Your task to perform on an android device: add a contact in the contacts app Image 0: 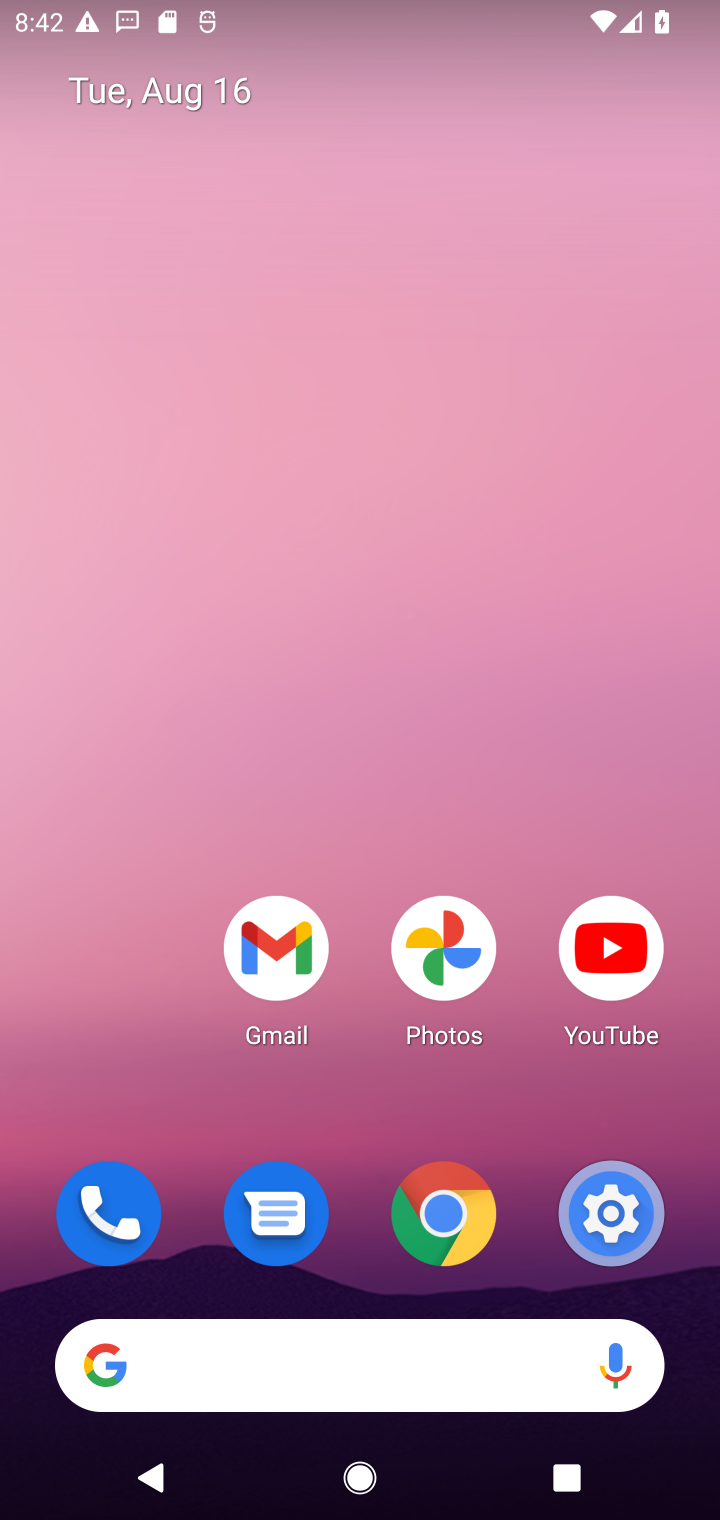
Step 0: press home button
Your task to perform on an android device: add a contact in the contacts app Image 1: 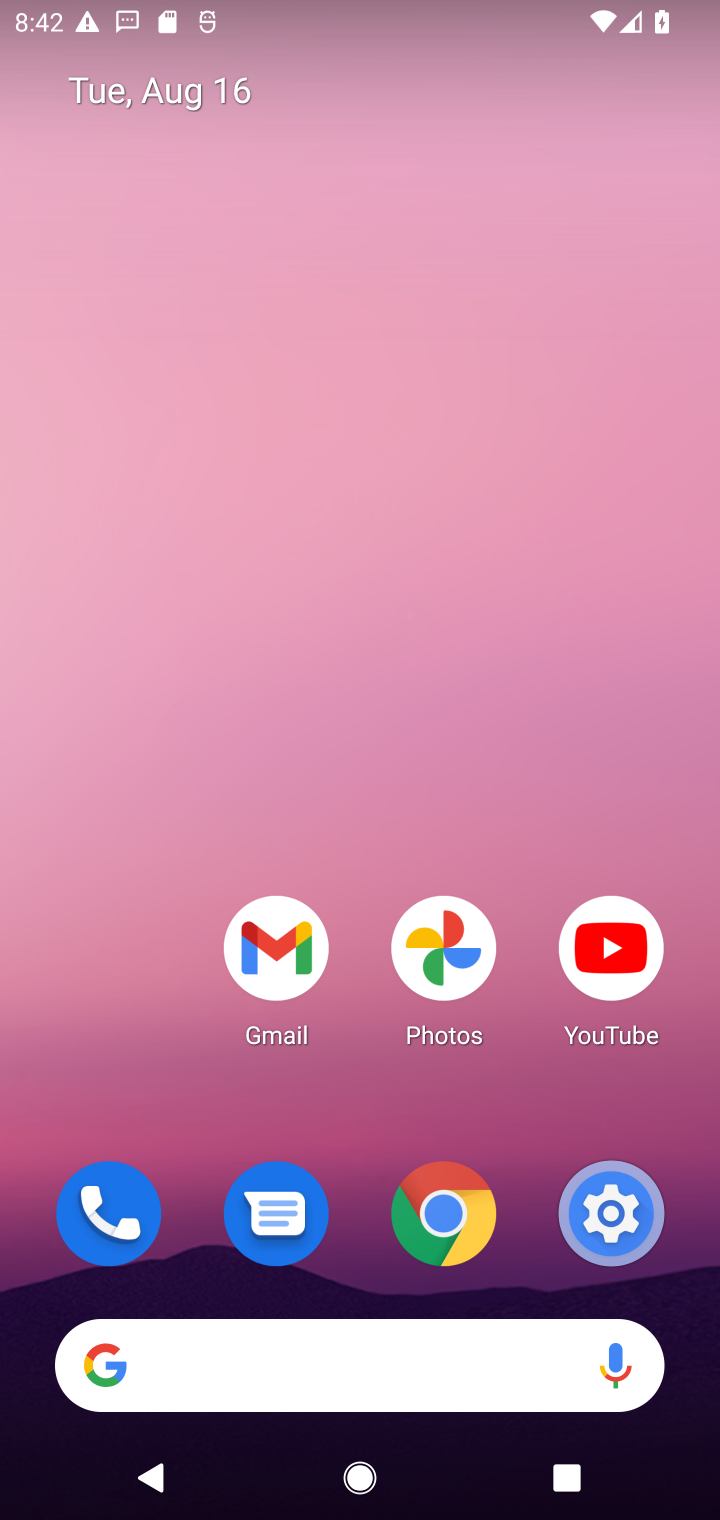
Step 1: press home button
Your task to perform on an android device: add a contact in the contacts app Image 2: 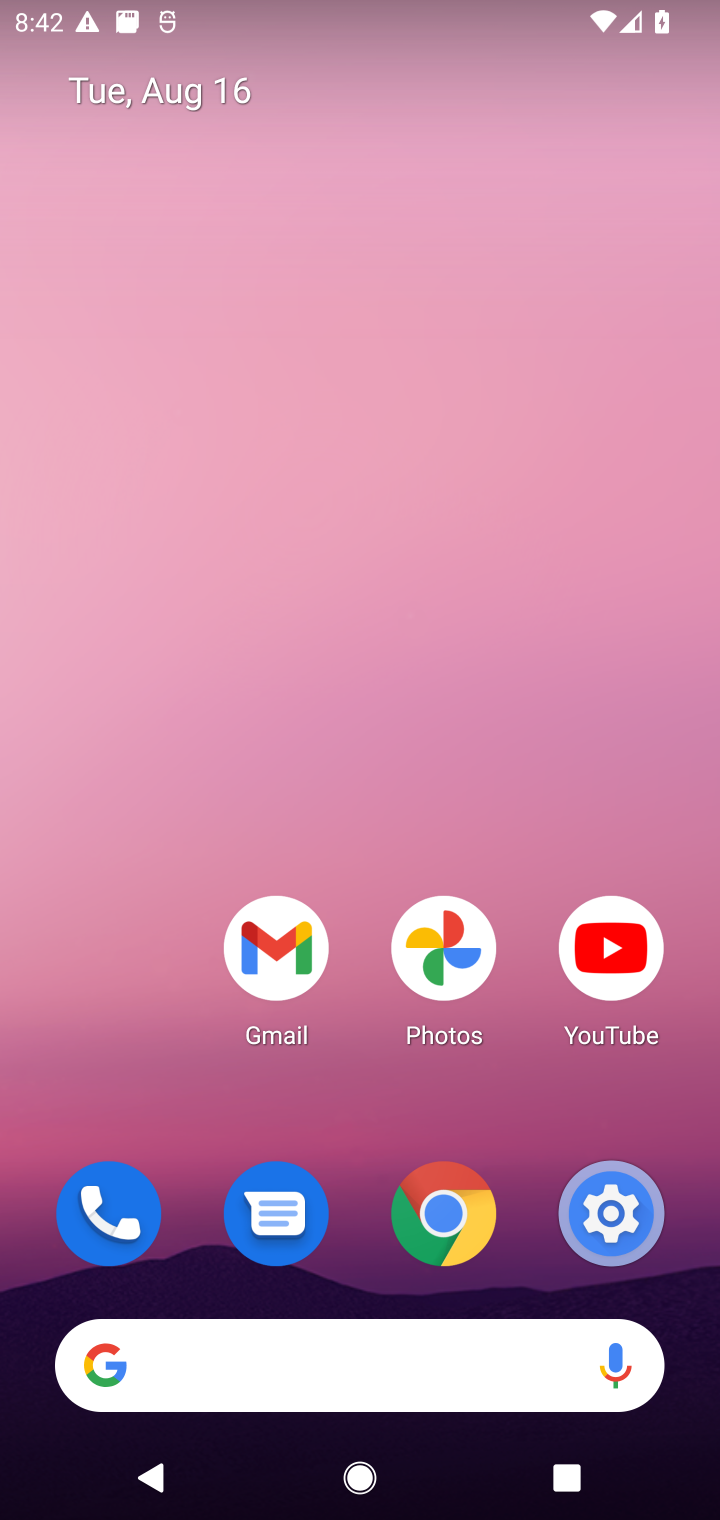
Step 2: drag from (152, 1063) to (175, 163)
Your task to perform on an android device: add a contact in the contacts app Image 3: 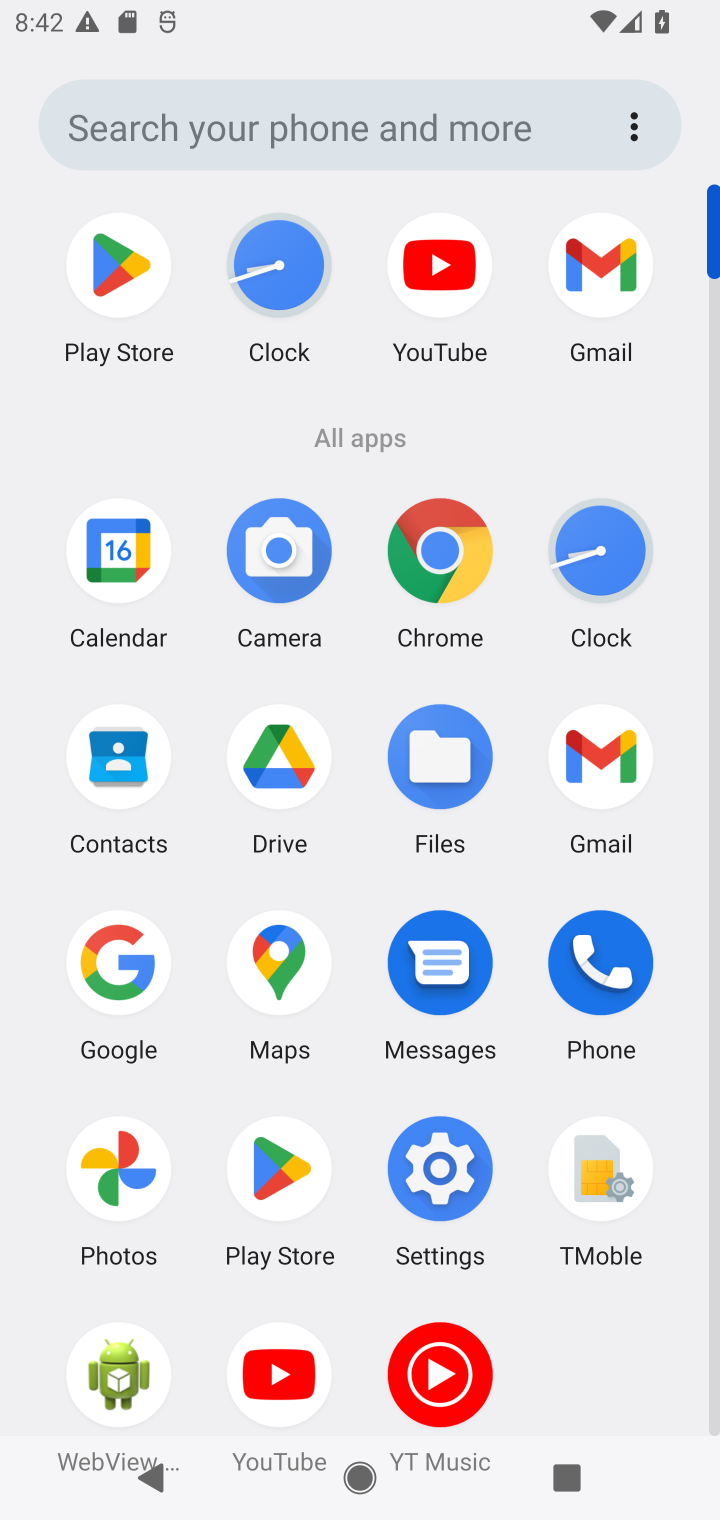
Step 3: click (107, 768)
Your task to perform on an android device: add a contact in the contacts app Image 4: 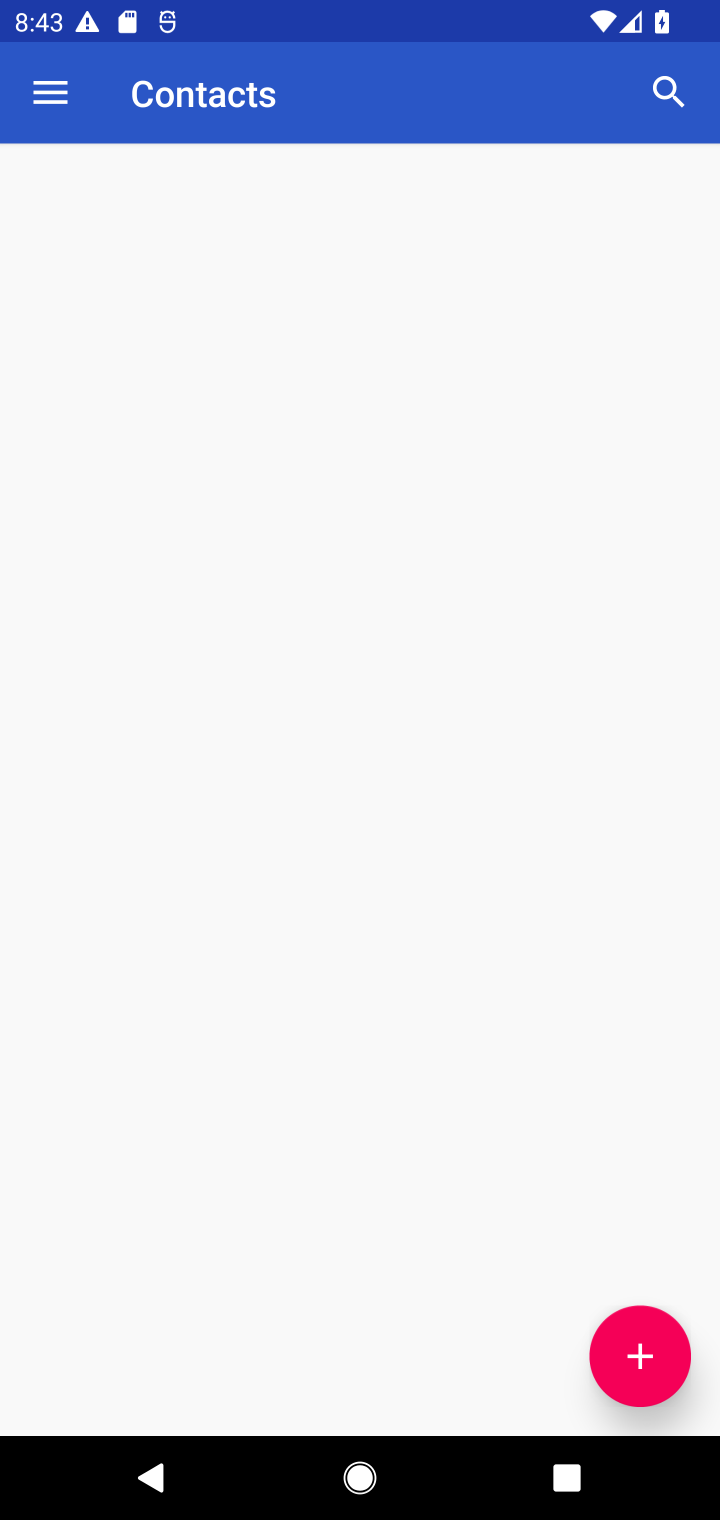
Step 4: click (658, 1346)
Your task to perform on an android device: add a contact in the contacts app Image 5: 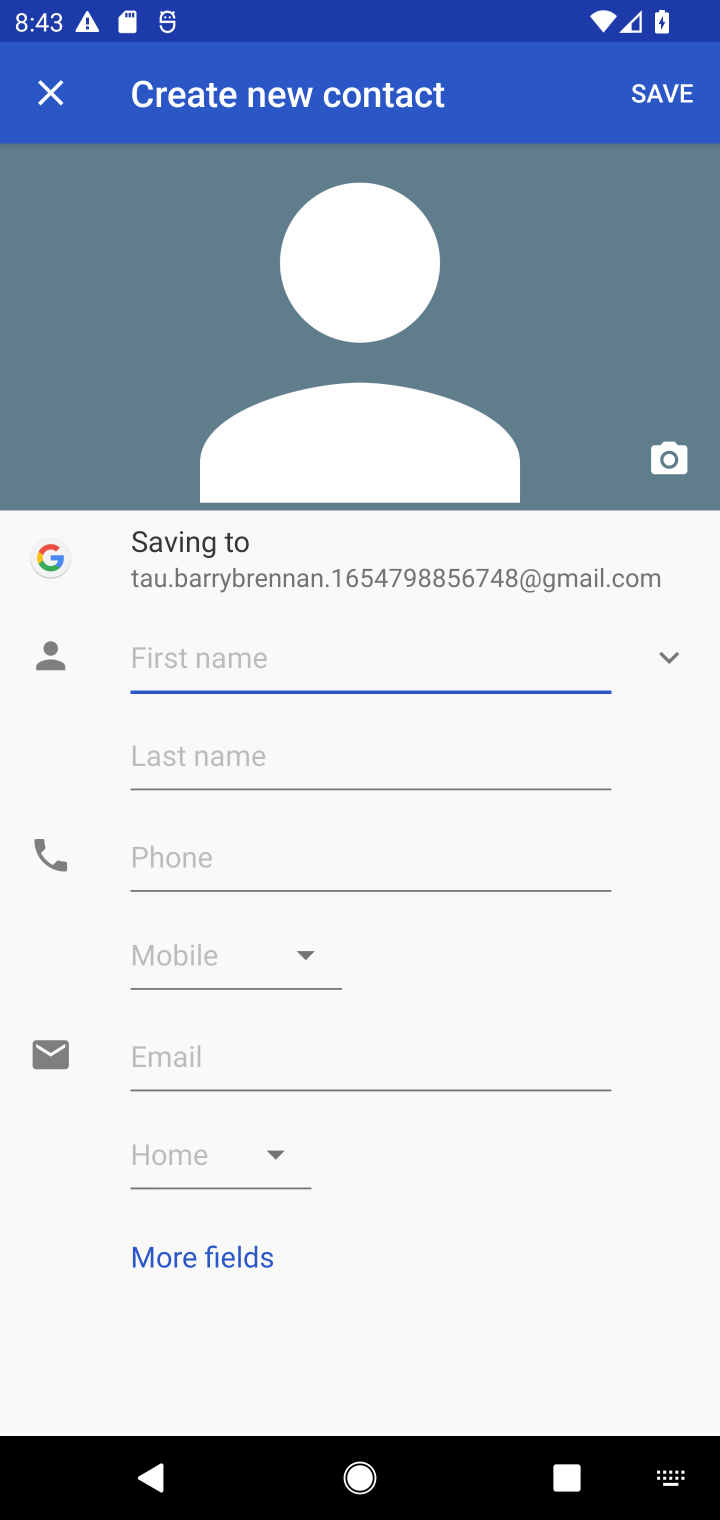
Step 5: type "rttgtgtwtgwgtr"
Your task to perform on an android device: add a contact in the contacts app Image 6: 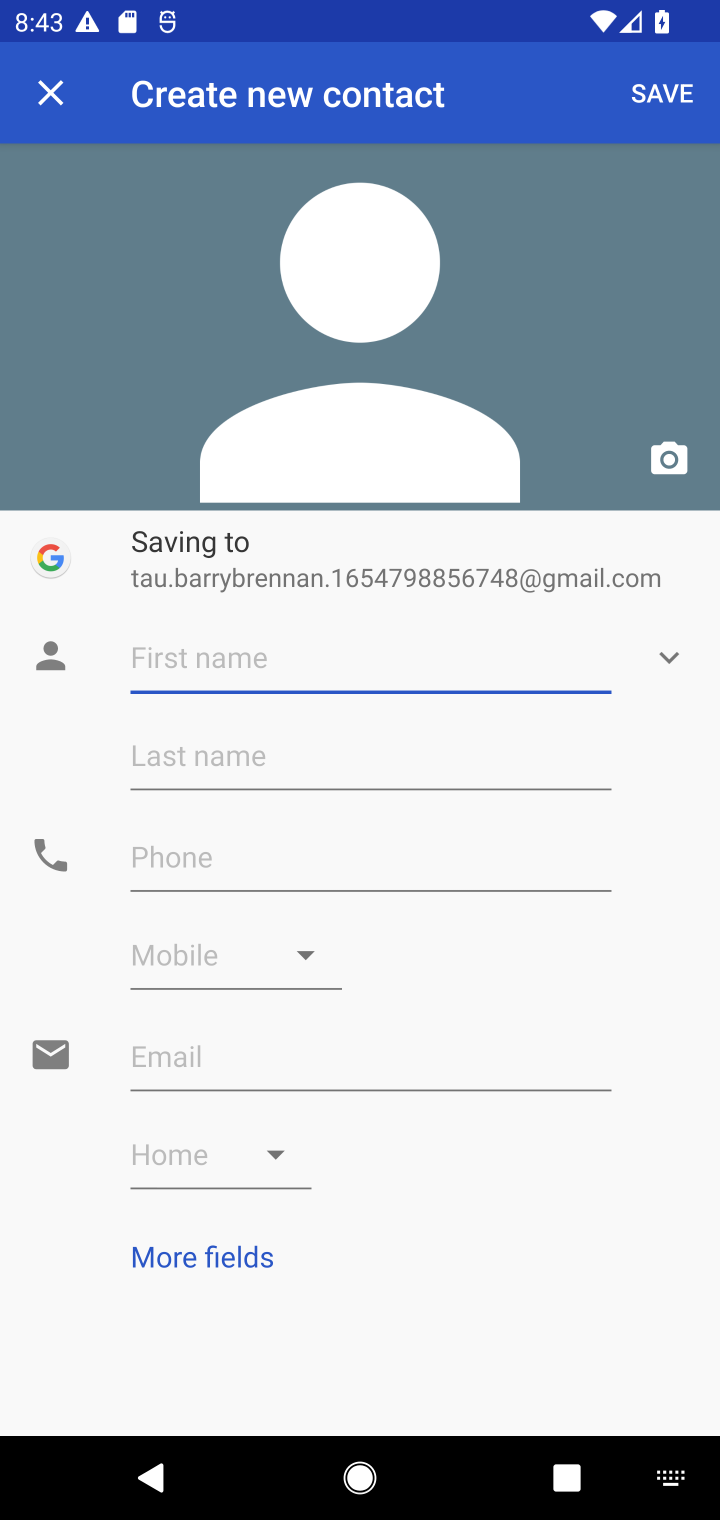
Step 6: click (300, 666)
Your task to perform on an android device: add a contact in the contacts app Image 7: 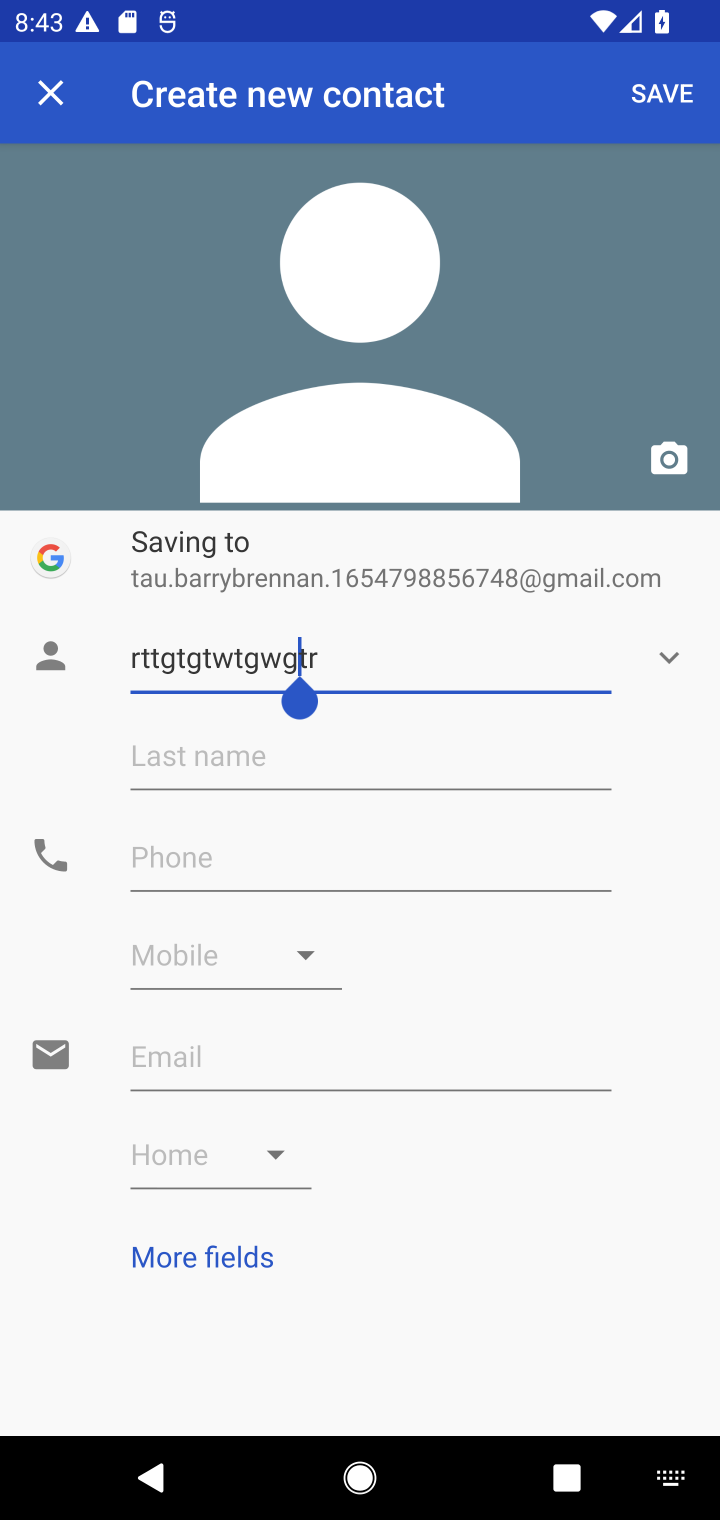
Step 7: click (200, 870)
Your task to perform on an android device: add a contact in the contacts app Image 8: 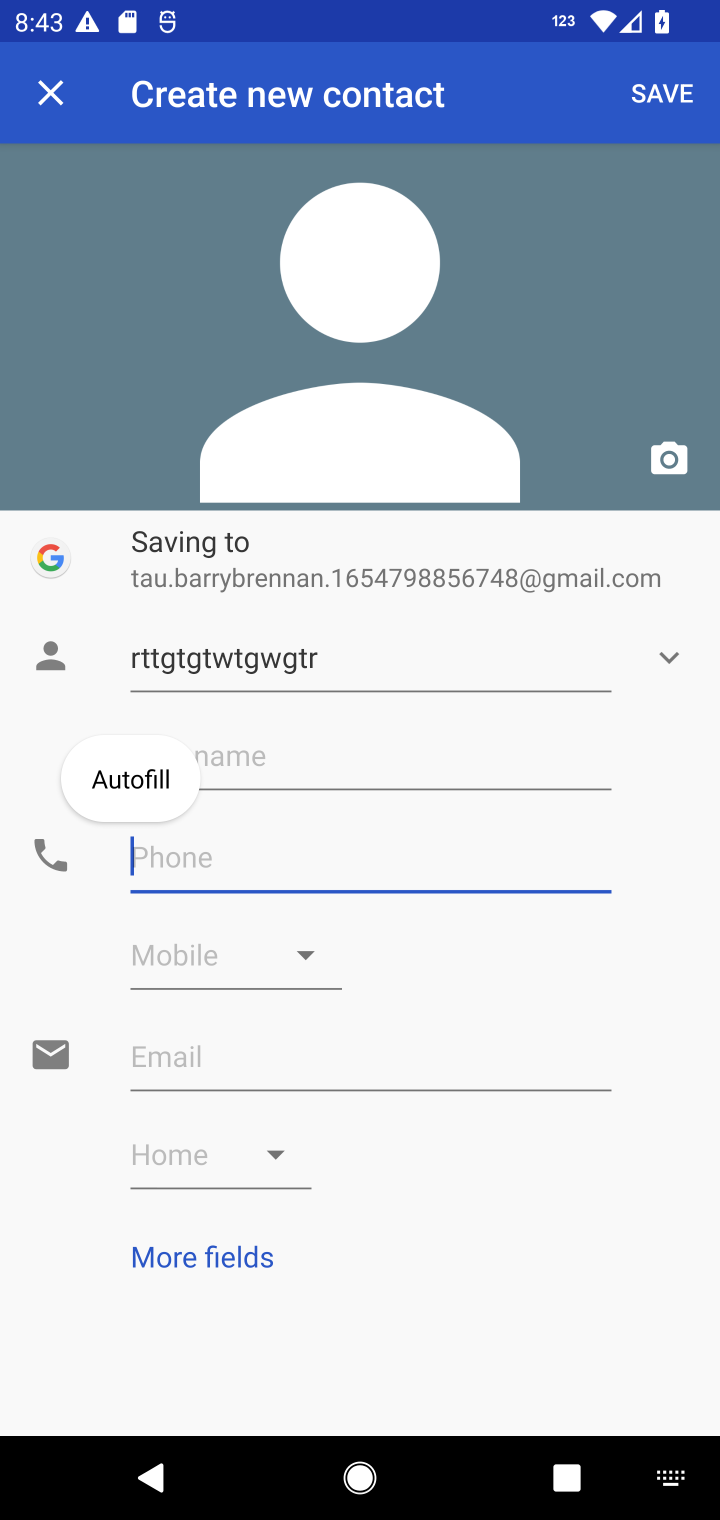
Step 8: type "543445454554"
Your task to perform on an android device: add a contact in the contacts app Image 9: 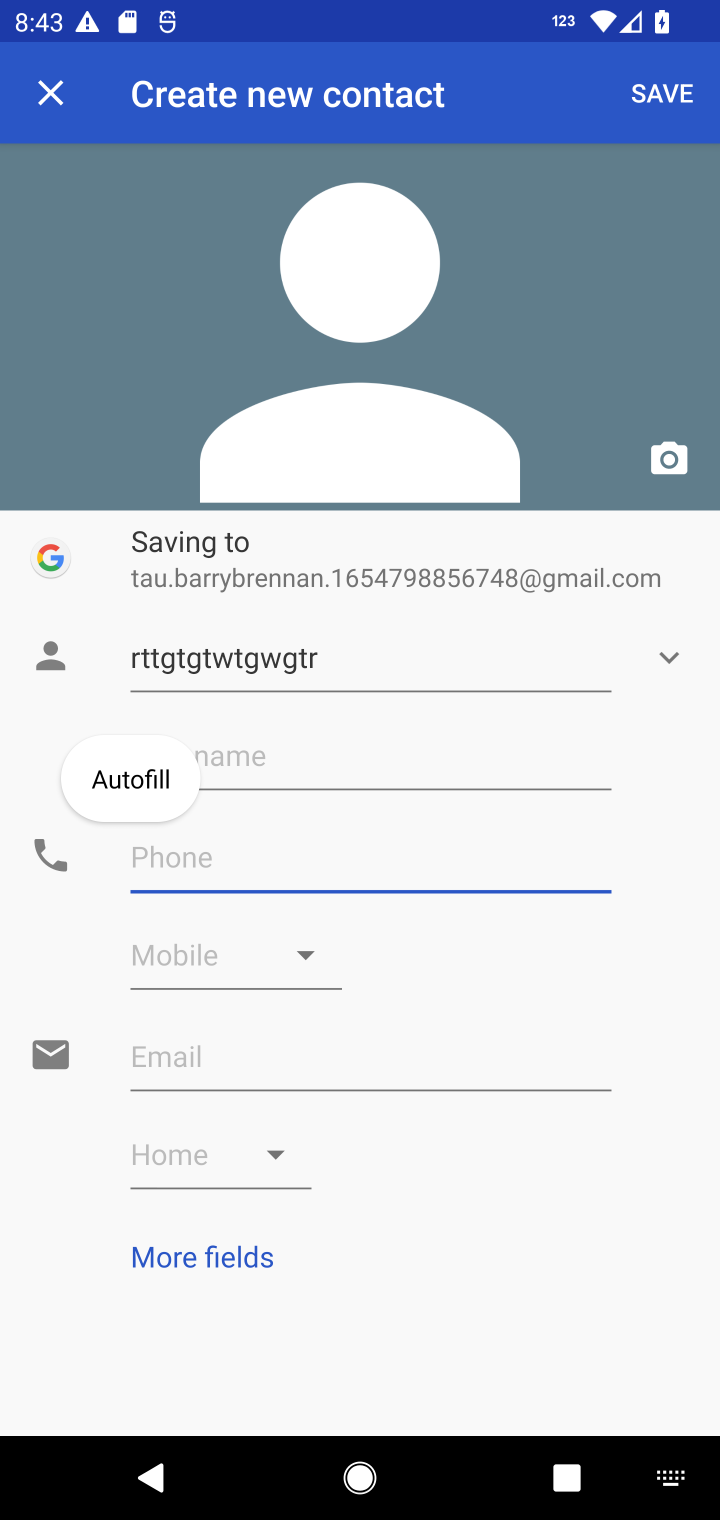
Step 9: click (175, 857)
Your task to perform on an android device: add a contact in the contacts app Image 10: 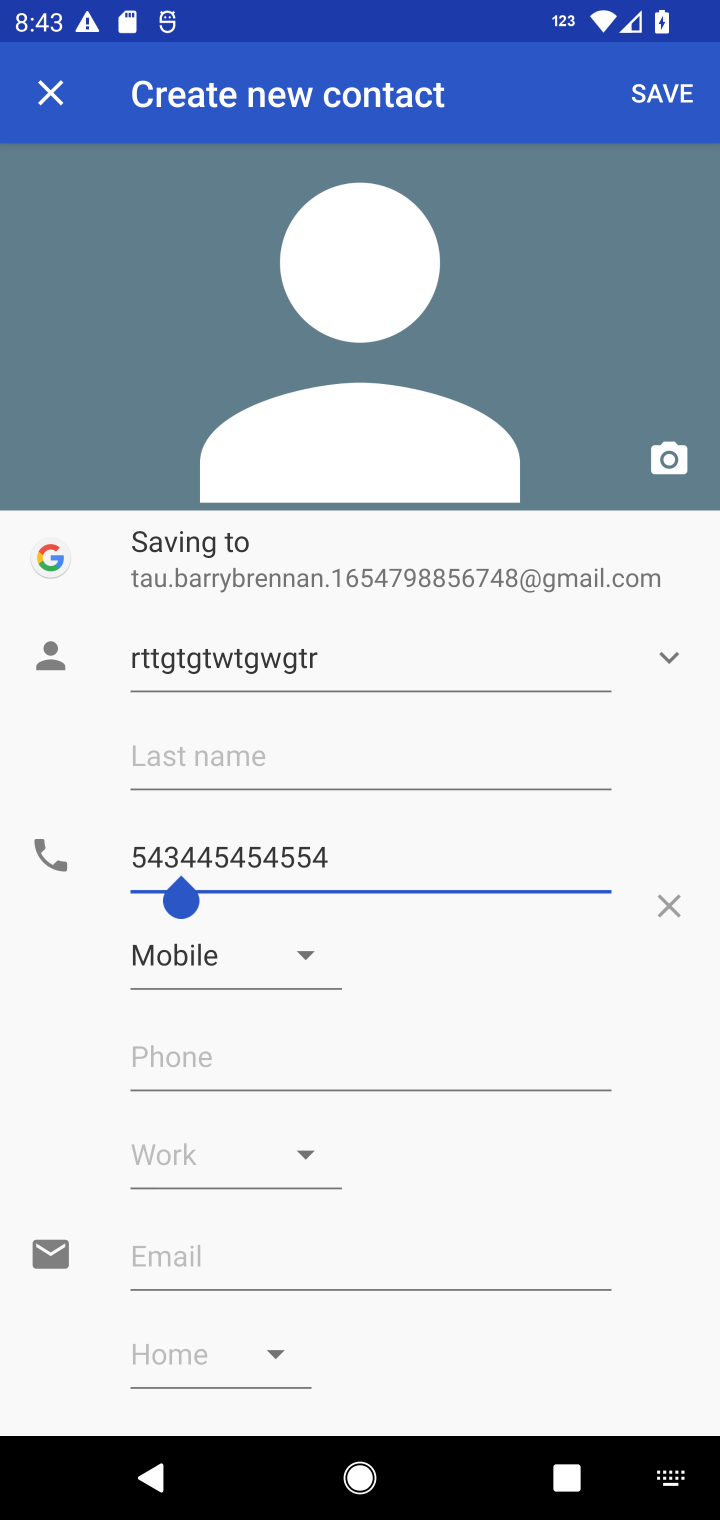
Step 10: click (686, 102)
Your task to perform on an android device: add a contact in the contacts app Image 11: 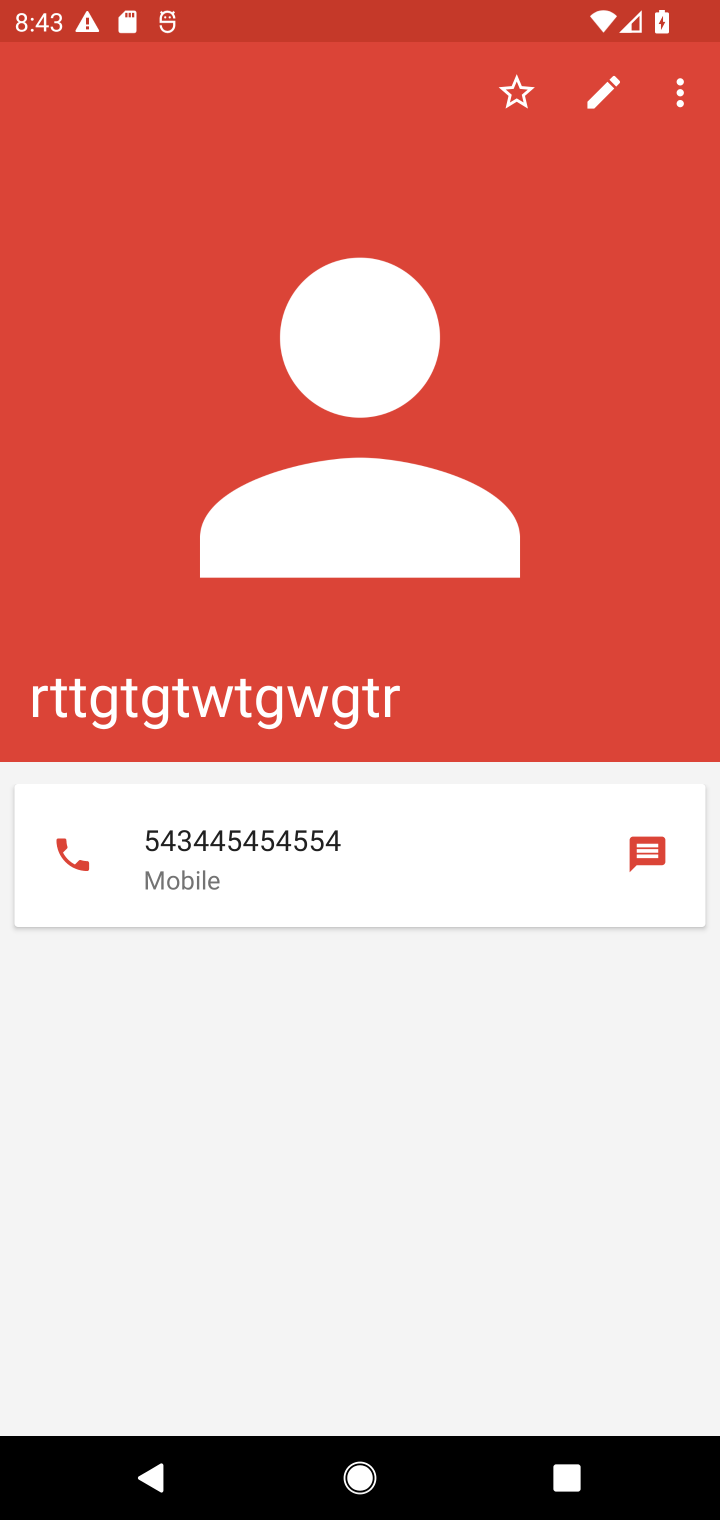
Step 11: task complete